Your task to perform on an android device: When is my next meeting? Image 0: 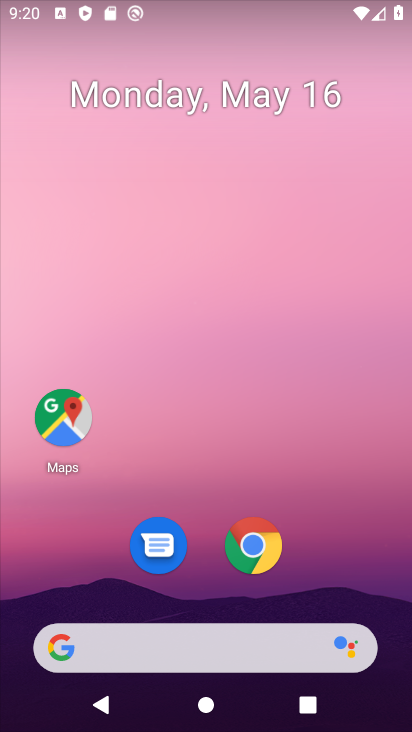
Step 0: click (136, 110)
Your task to perform on an android device: When is my next meeting? Image 1: 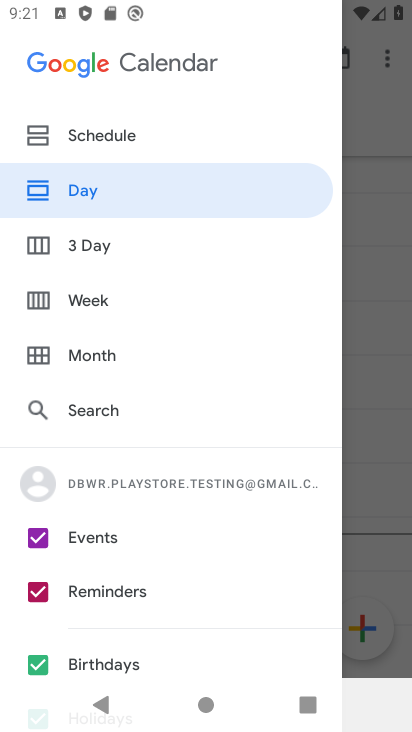
Step 1: click (136, 110)
Your task to perform on an android device: When is my next meeting? Image 2: 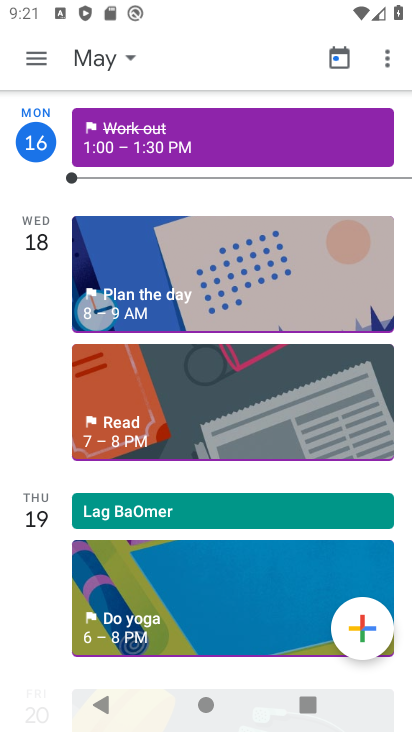
Step 2: click (136, 110)
Your task to perform on an android device: When is my next meeting? Image 3: 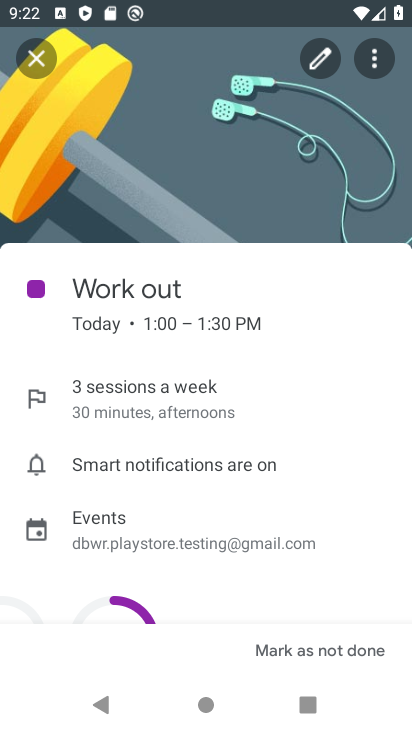
Step 3: task complete